Your task to perform on an android device: search for starred emails in the gmail app Image 0: 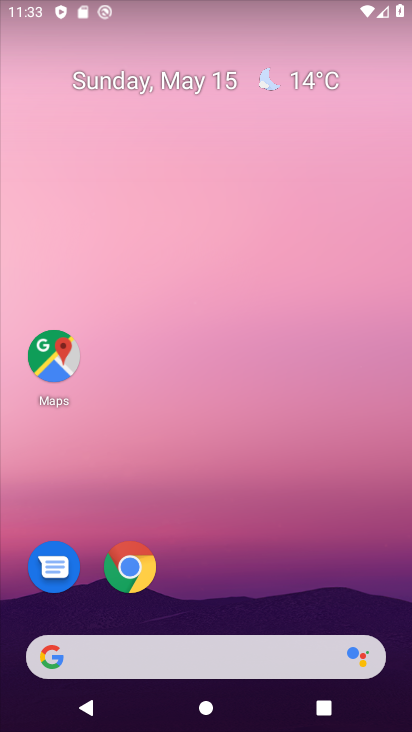
Step 0: drag from (228, 576) to (320, 117)
Your task to perform on an android device: search for starred emails in the gmail app Image 1: 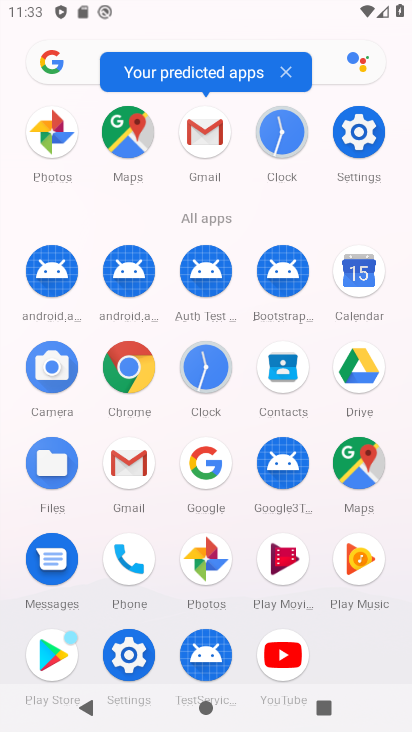
Step 1: click (211, 153)
Your task to perform on an android device: search for starred emails in the gmail app Image 2: 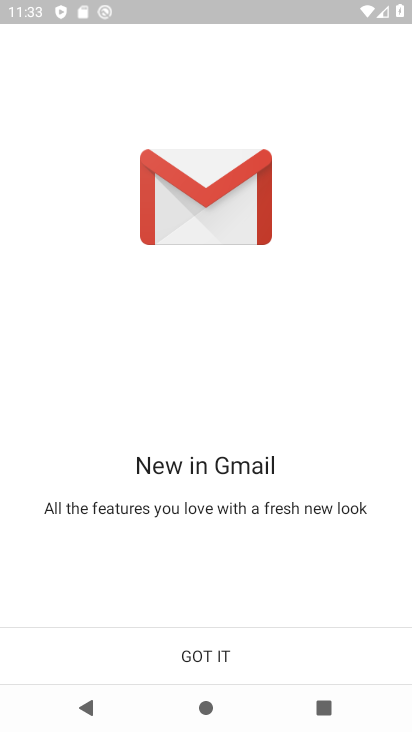
Step 2: click (273, 676)
Your task to perform on an android device: search for starred emails in the gmail app Image 3: 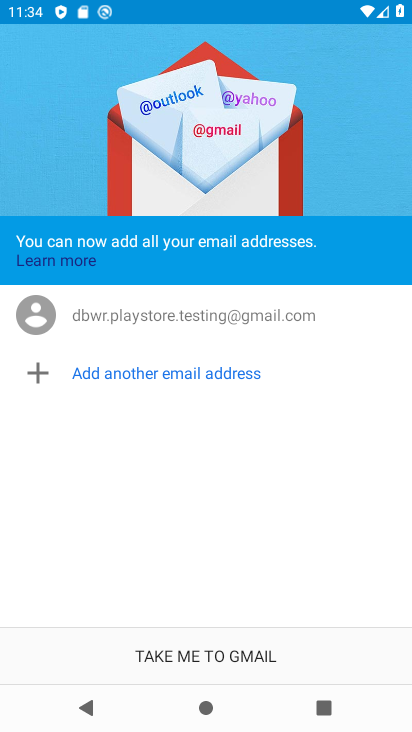
Step 3: click (179, 643)
Your task to perform on an android device: search for starred emails in the gmail app Image 4: 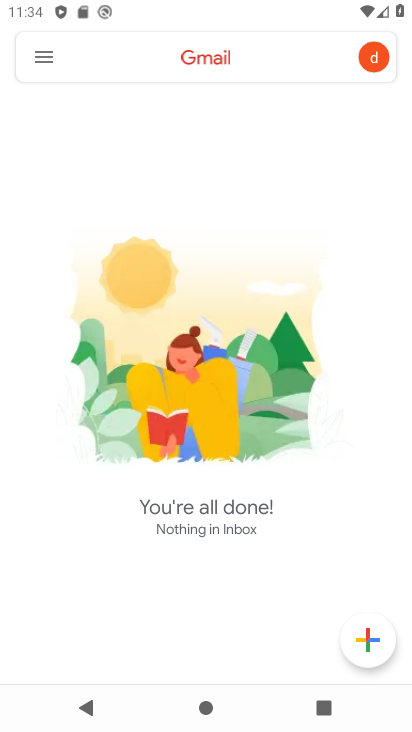
Step 4: click (43, 62)
Your task to perform on an android device: search for starred emails in the gmail app Image 5: 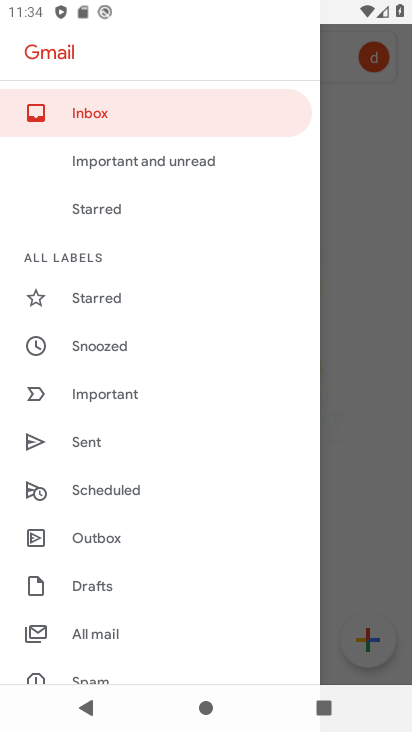
Step 5: click (116, 301)
Your task to perform on an android device: search for starred emails in the gmail app Image 6: 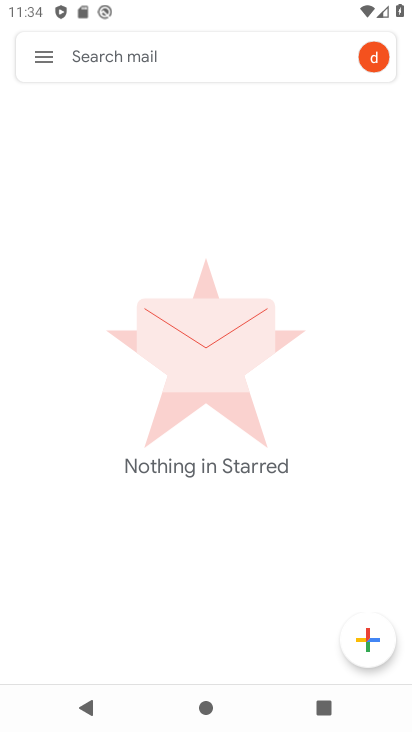
Step 6: task complete